Your task to perform on an android device: toggle data saver in the chrome app Image 0: 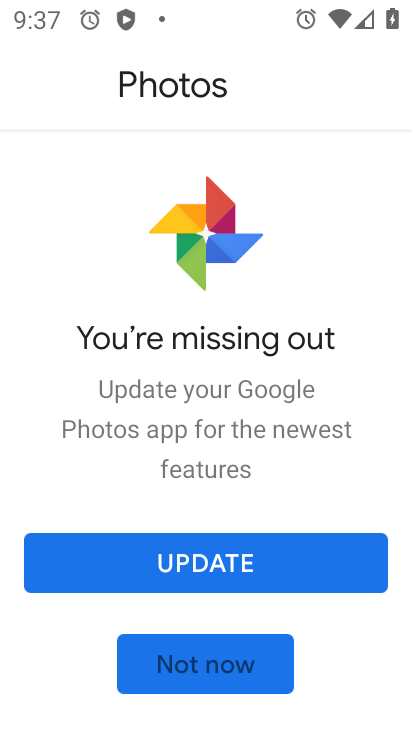
Step 0: press home button
Your task to perform on an android device: toggle data saver in the chrome app Image 1: 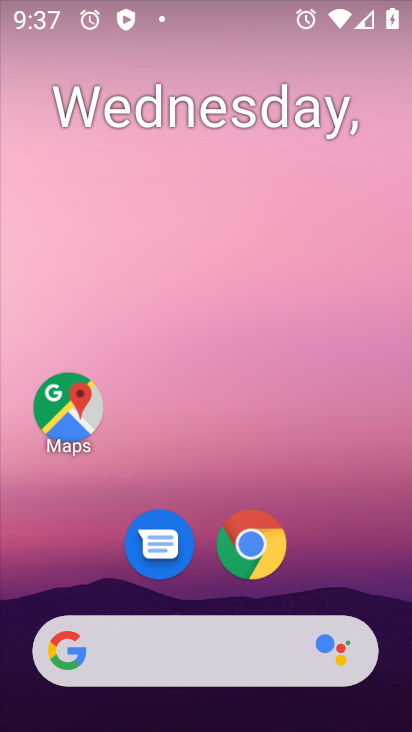
Step 1: click (267, 565)
Your task to perform on an android device: toggle data saver in the chrome app Image 2: 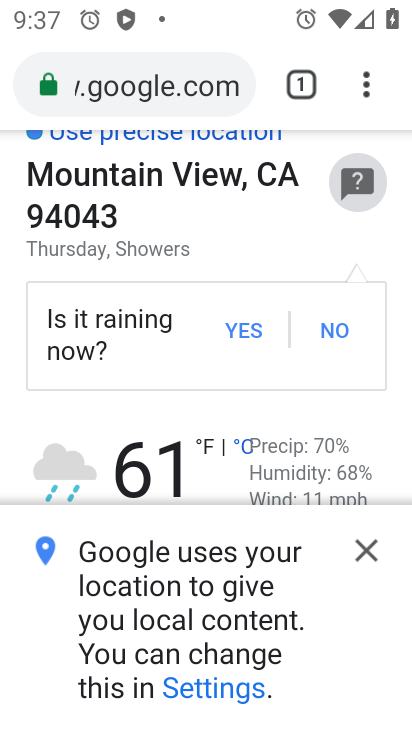
Step 2: click (372, 550)
Your task to perform on an android device: toggle data saver in the chrome app Image 3: 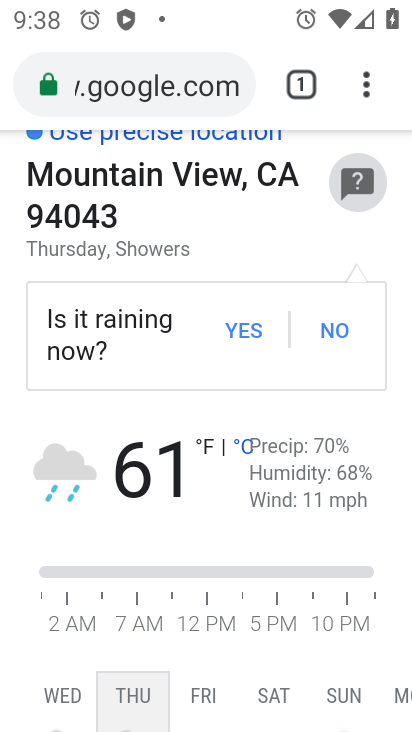
Step 3: click (364, 106)
Your task to perform on an android device: toggle data saver in the chrome app Image 4: 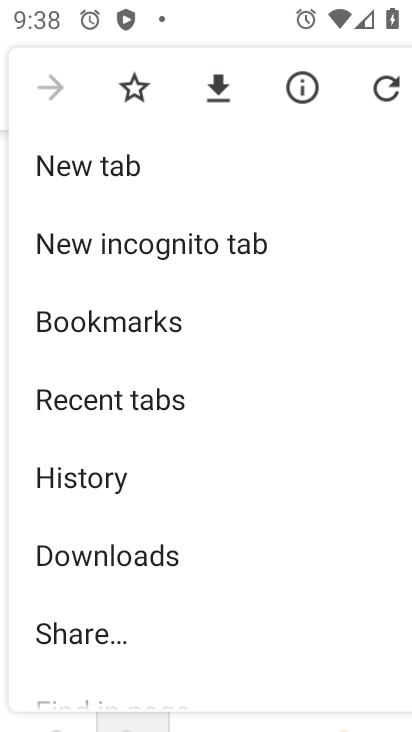
Step 4: drag from (290, 635) to (313, 201)
Your task to perform on an android device: toggle data saver in the chrome app Image 5: 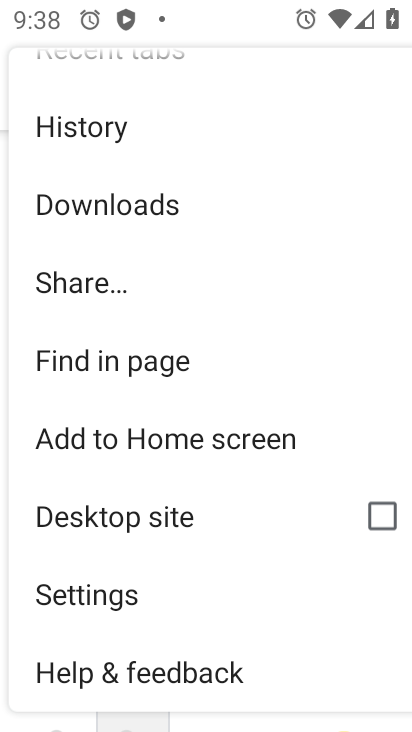
Step 5: click (238, 603)
Your task to perform on an android device: toggle data saver in the chrome app Image 6: 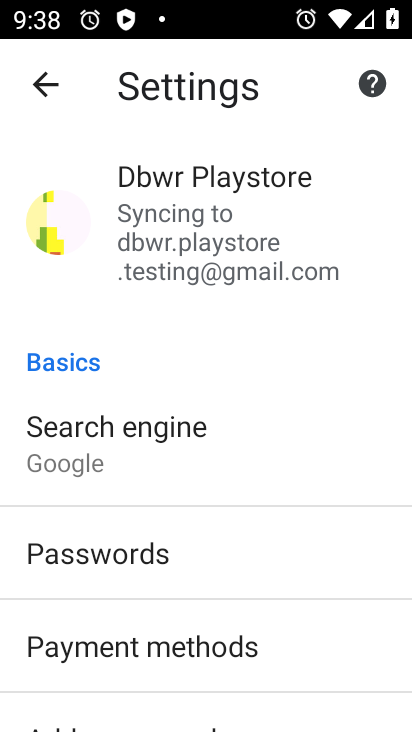
Step 6: drag from (250, 655) to (238, 307)
Your task to perform on an android device: toggle data saver in the chrome app Image 7: 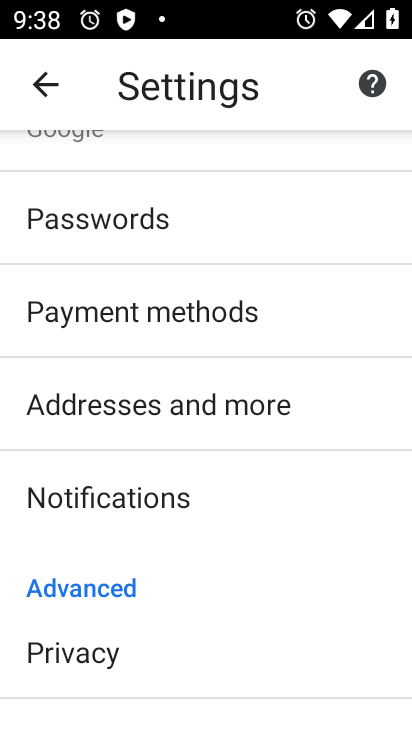
Step 7: drag from (315, 608) to (326, 316)
Your task to perform on an android device: toggle data saver in the chrome app Image 8: 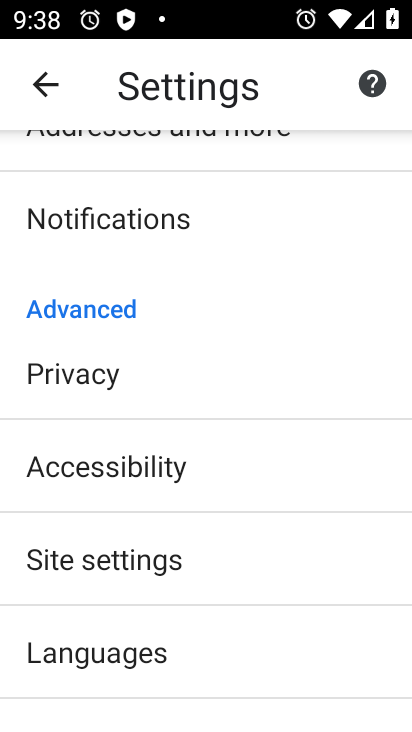
Step 8: drag from (341, 635) to (341, 455)
Your task to perform on an android device: toggle data saver in the chrome app Image 9: 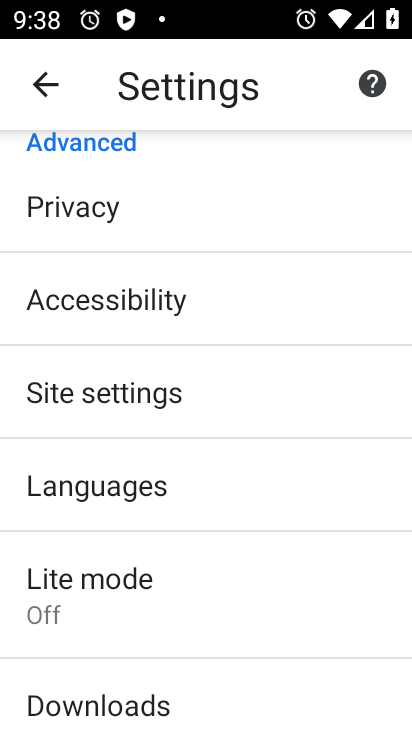
Step 9: click (312, 587)
Your task to perform on an android device: toggle data saver in the chrome app Image 10: 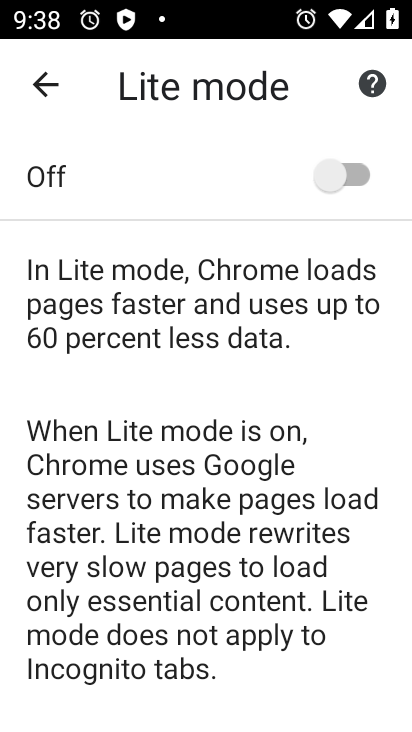
Step 10: click (332, 188)
Your task to perform on an android device: toggle data saver in the chrome app Image 11: 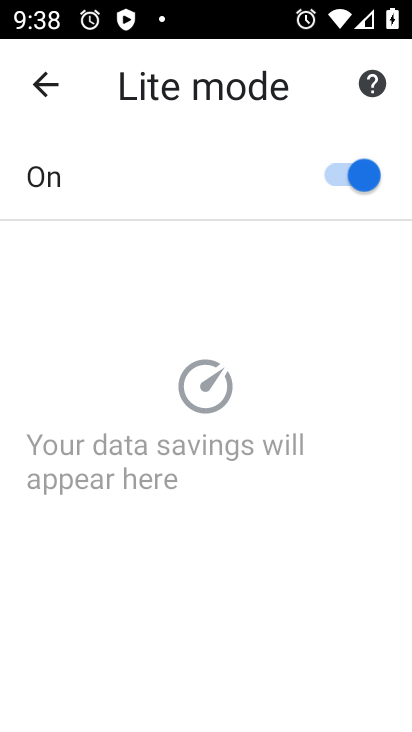
Step 11: task complete